Your task to perform on an android device: turn pop-ups off in chrome Image 0: 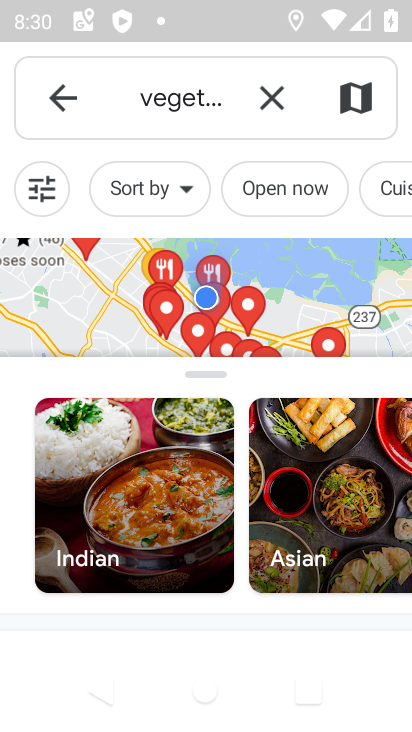
Step 0: press home button
Your task to perform on an android device: turn pop-ups off in chrome Image 1: 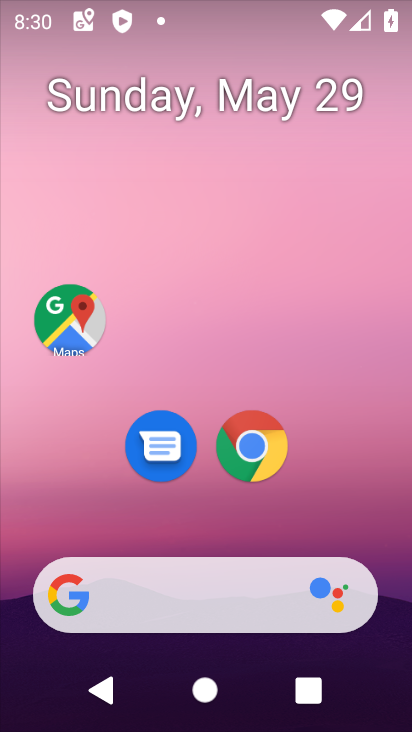
Step 1: click (266, 471)
Your task to perform on an android device: turn pop-ups off in chrome Image 2: 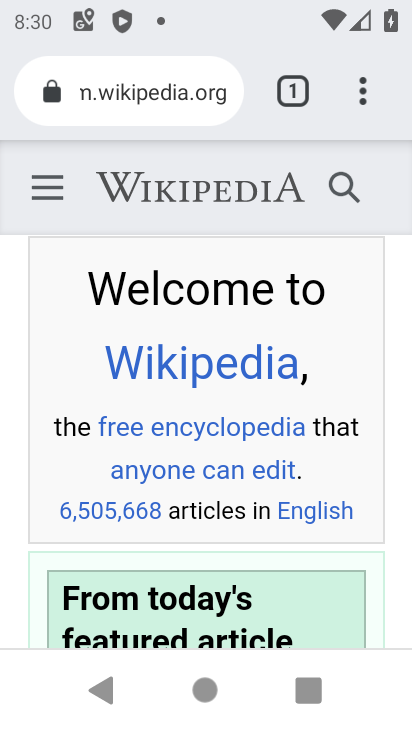
Step 2: drag from (368, 76) to (107, 468)
Your task to perform on an android device: turn pop-ups off in chrome Image 3: 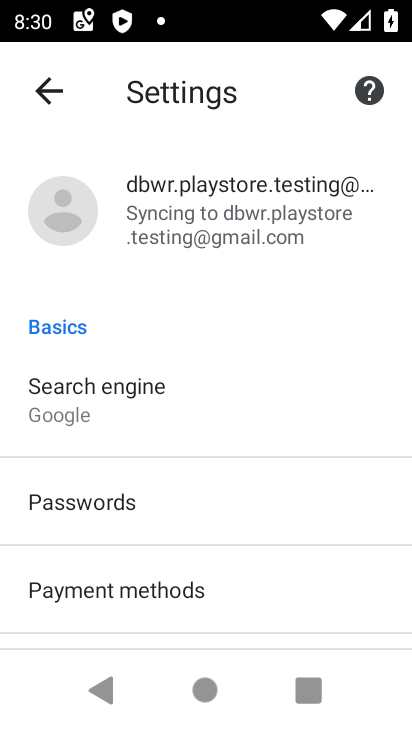
Step 3: drag from (157, 580) to (198, 66)
Your task to perform on an android device: turn pop-ups off in chrome Image 4: 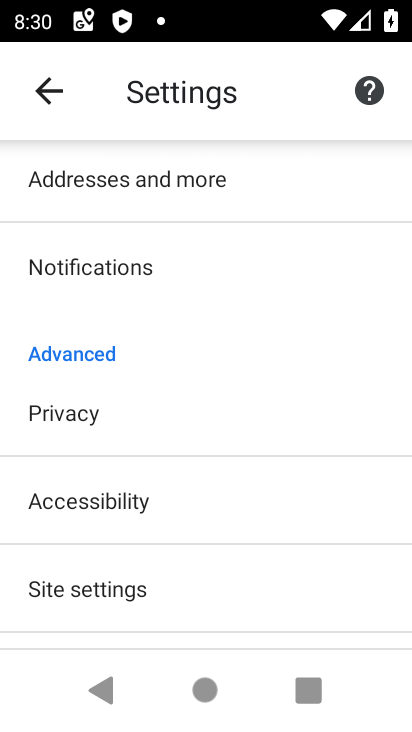
Step 4: click (195, 561)
Your task to perform on an android device: turn pop-ups off in chrome Image 5: 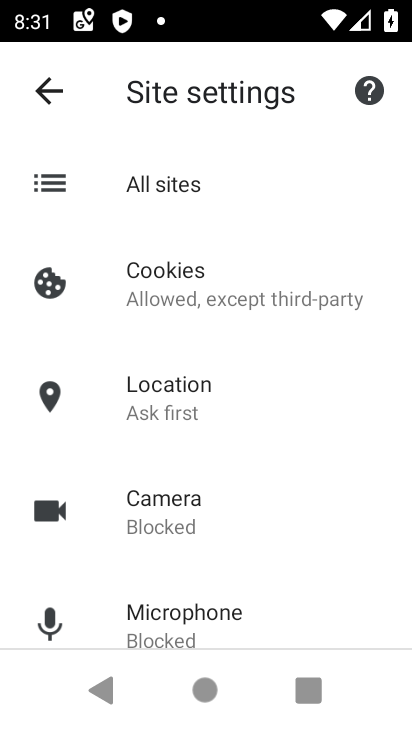
Step 5: drag from (213, 598) to (269, 123)
Your task to perform on an android device: turn pop-ups off in chrome Image 6: 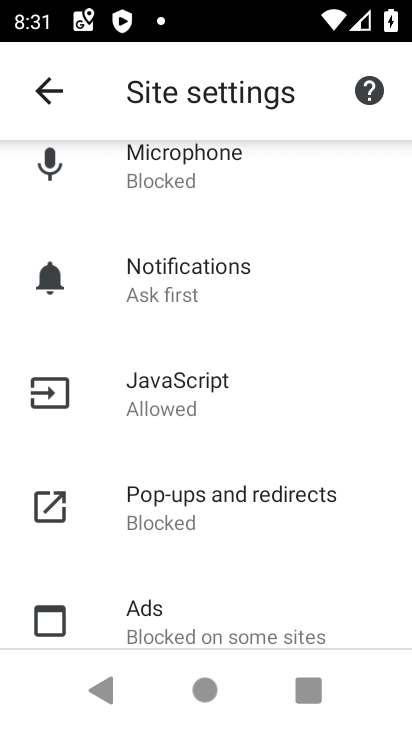
Step 6: click (236, 513)
Your task to perform on an android device: turn pop-ups off in chrome Image 7: 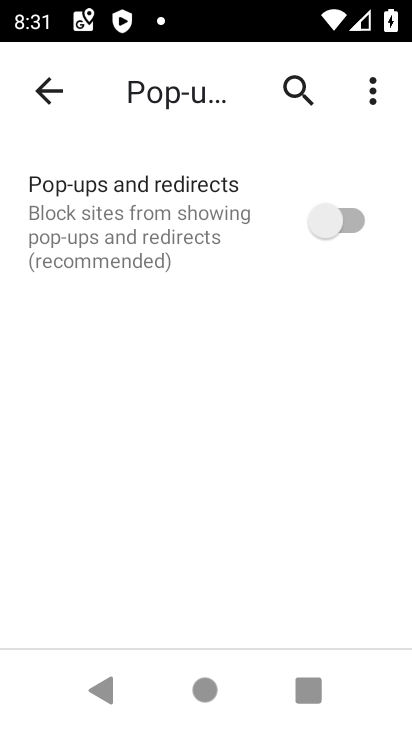
Step 7: task complete